Your task to perform on an android device: Open wifi settings Image 0: 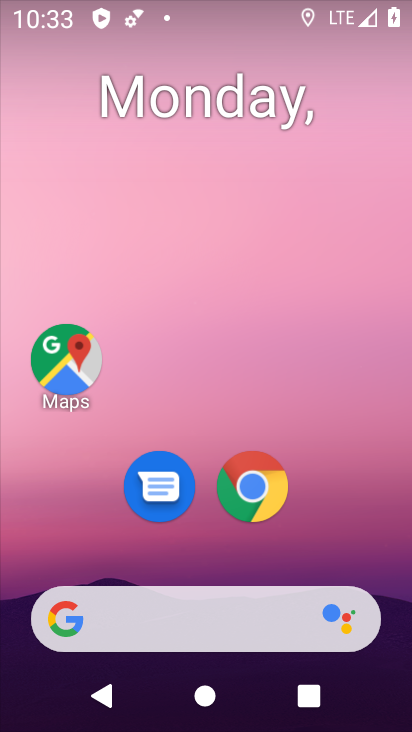
Step 0: drag from (252, 5) to (230, 446)
Your task to perform on an android device: Open wifi settings Image 1: 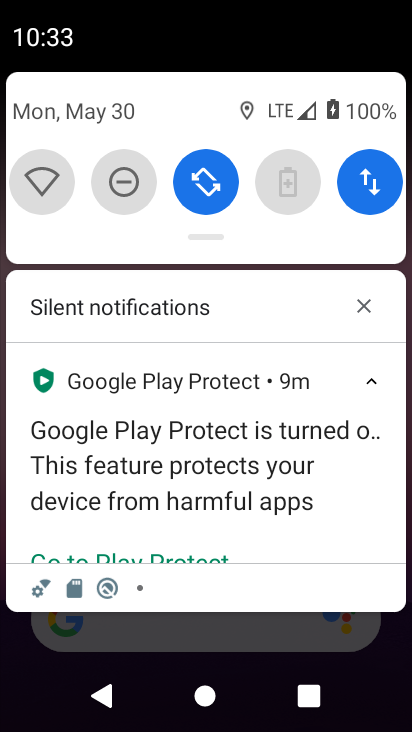
Step 1: click (49, 167)
Your task to perform on an android device: Open wifi settings Image 2: 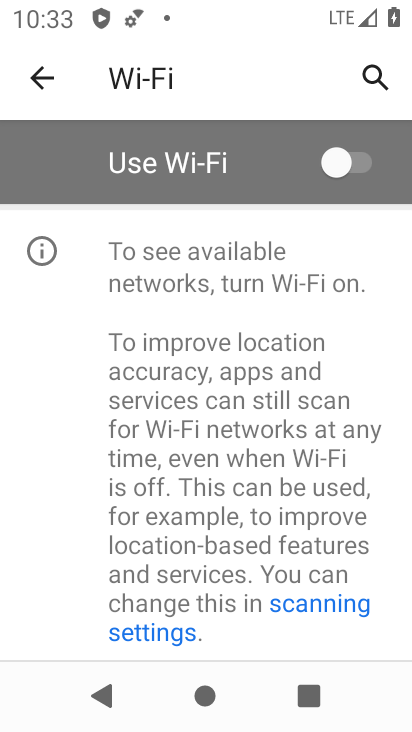
Step 2: task complete